Your task to perform on an android device: When is my next appointment? Image 0: 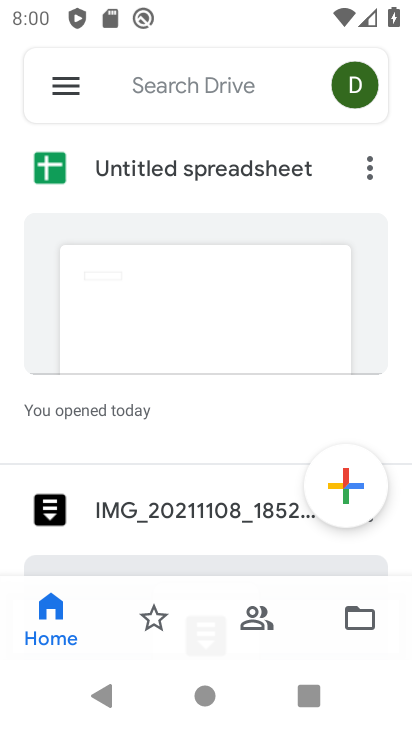
Step 0: press home button
Your task to perform on an android device: When is my next appointment? Image 1: 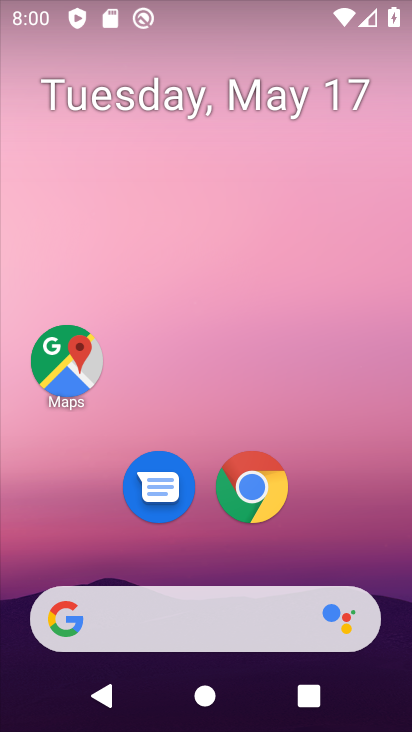
Step 1: drag from (215, 655) to (298, 180)
Your task to perform on an android device: When is my next appointment? Image 2: 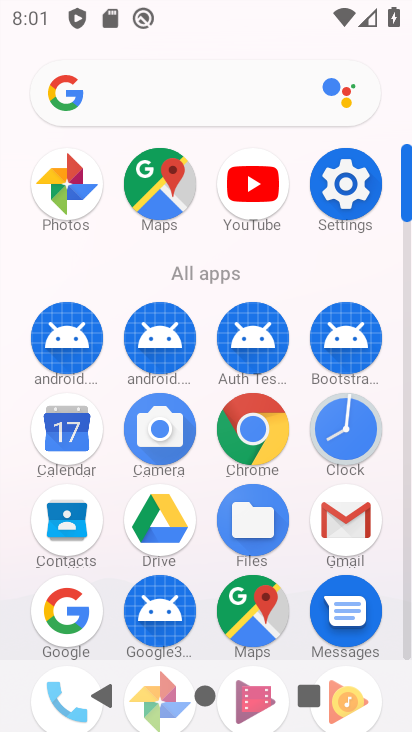
Step 2: click (83, 430)
Your task to perform on an android device: When is my next appointment? Image 3: 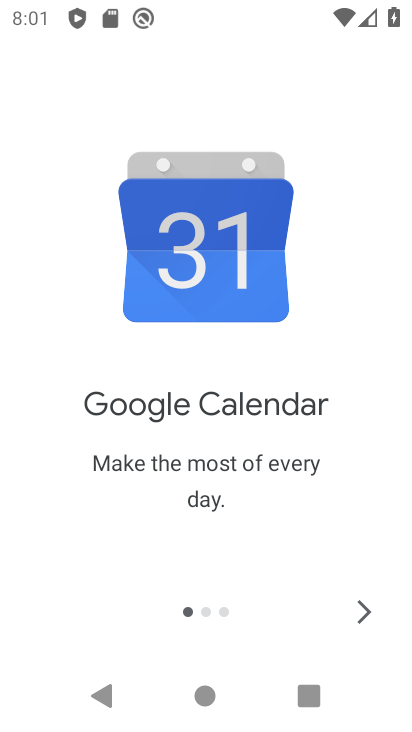
Step 3: click (338, 609)
Your task to perform on an android device: When is my next appointment? Image 4: 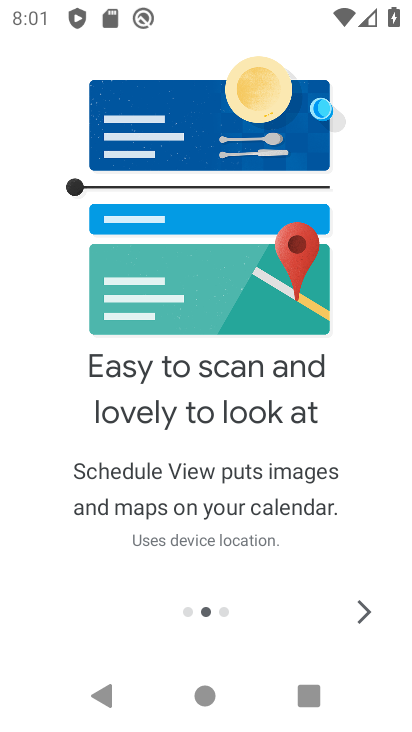
Step 4: click (354, 611)
Your task to perform on an android device: When is my next appointment? Image 5: 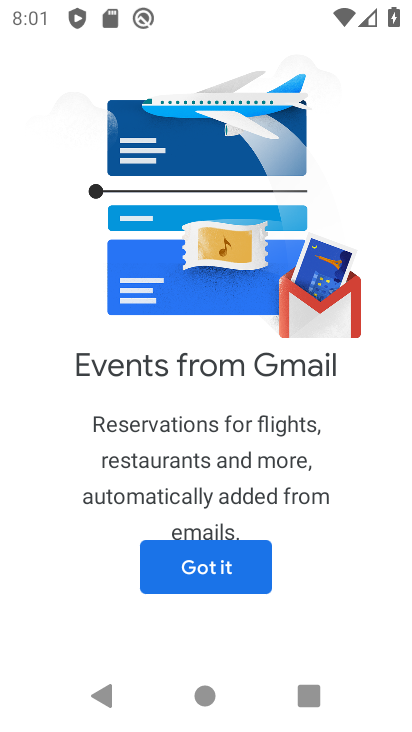
Step 5: click (243, 559)
Your task to perform on an android device: When is my next appointment? Image 6: 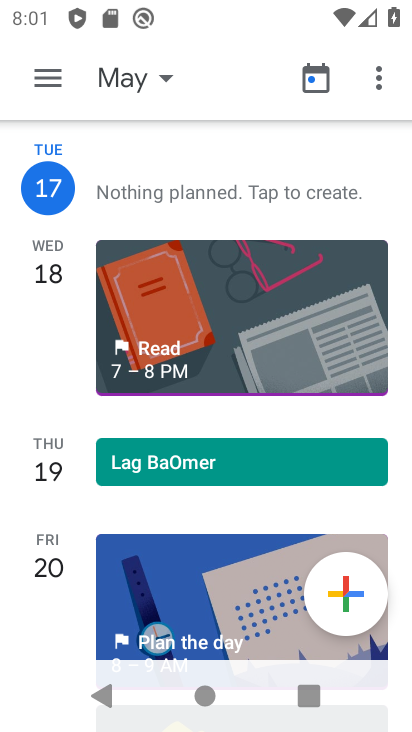
Step 6: task complete